Your task to perform on an android device: Go to Google Image 0: 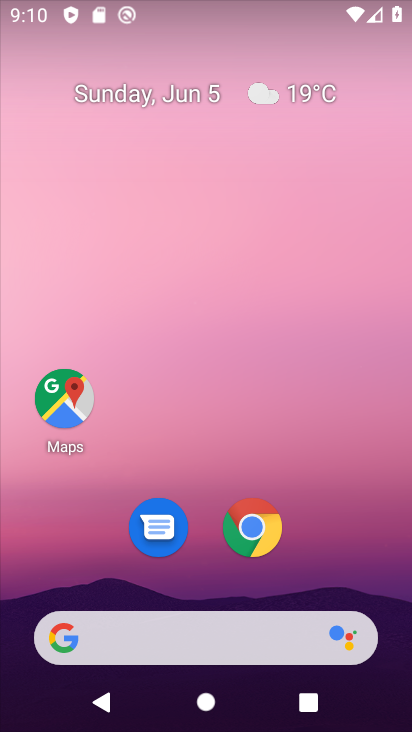
Step 0: drag from (182, 564) to (193, 30)
Your task to perform on an android device: Go to Google Image 1: 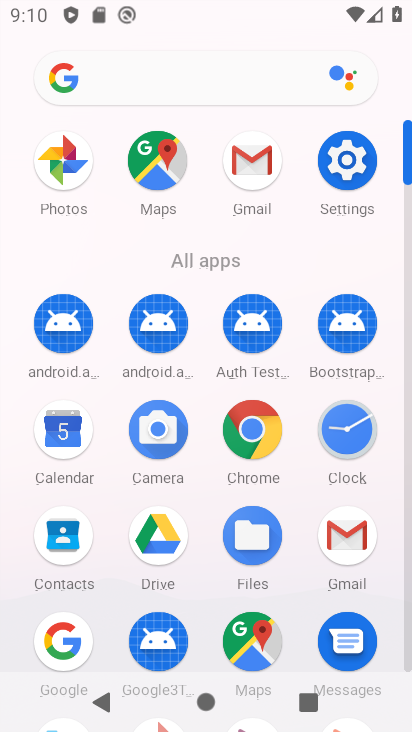
Step 1: click (52, 649)
Your task to perform on an android device: Go to Google Image 2: 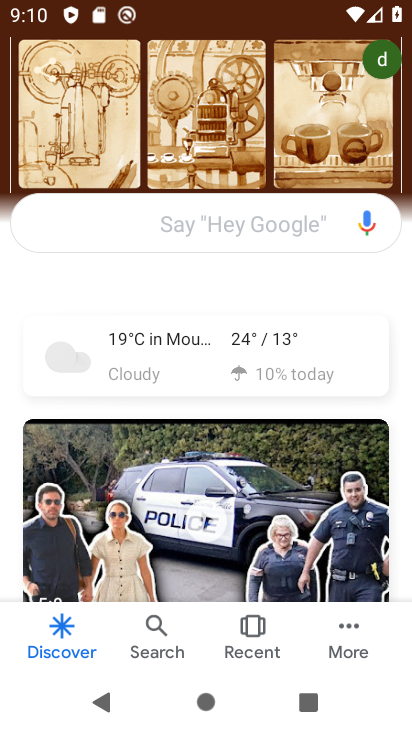
Step 2: task complete